Your task to perform on an android device: Go to notification settings Image 0: 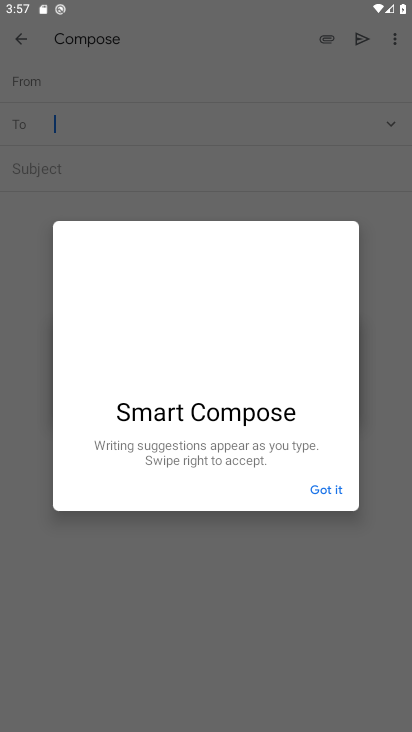
Step 0: press home button
Your task to perform on an android device: Go to notification settings Image 1: 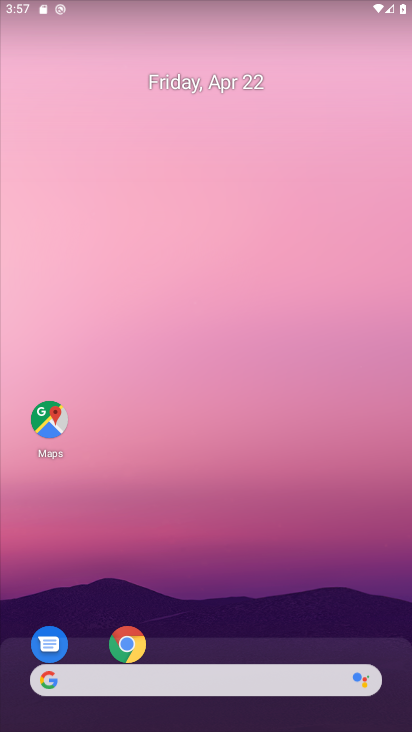
Step 1: drag from (314, 410) to (280, 137)
Your task to perform on an android device: Go to notification settings Image 2: 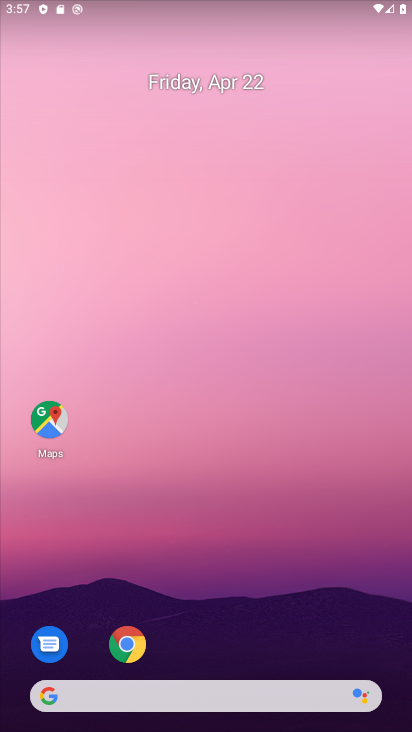
Step 2: drag from (316, 439) to (324, 132)
Your task to perform on an android device: Go to notification settings Image 3: 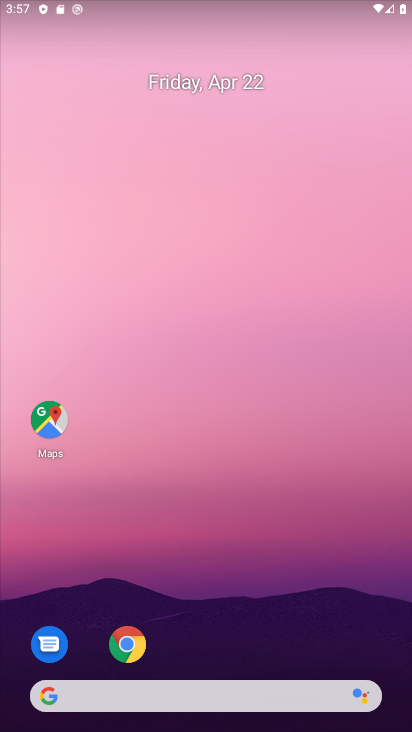
Step 3: drag from (193, 693) to (272, 66)
Your task to perform on an android device: Go to notification settings Image 4: 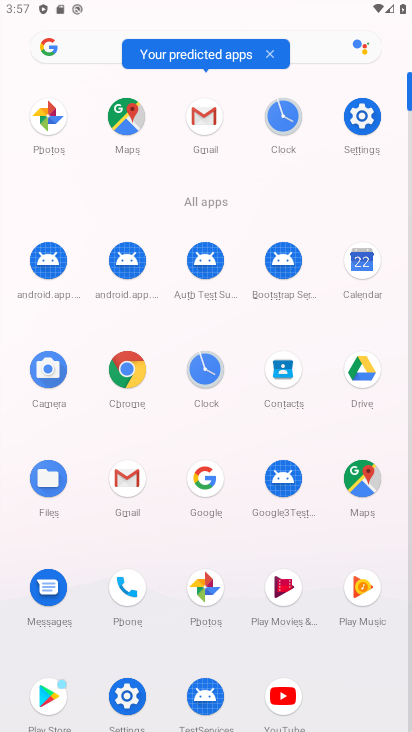
Step 4: click (363, 127)
Your task to perform on an android device: Go to notification settings Image 5: 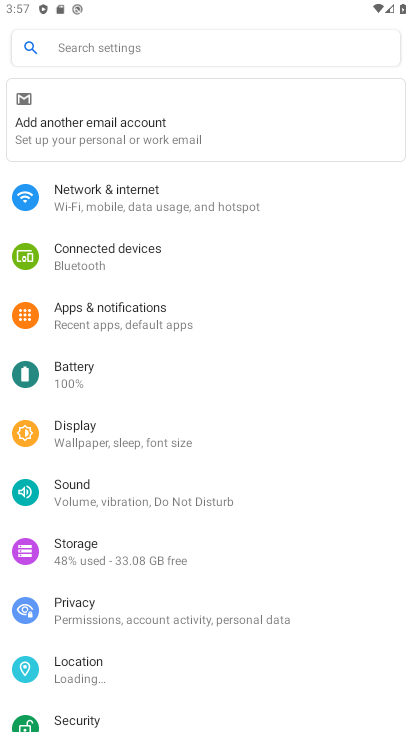
Step 5: click (139, 328)
Your task to perform on an android device: Go to notification settings Image 6: 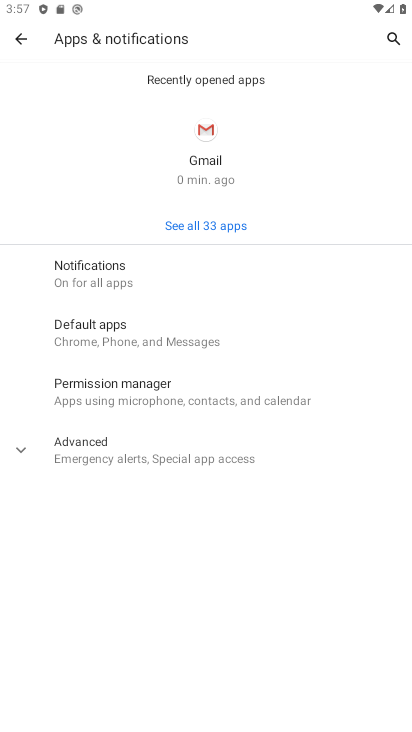
Step 6: click (151, 285)
Your task to perform on an android device: Go to notification settings Image 7: 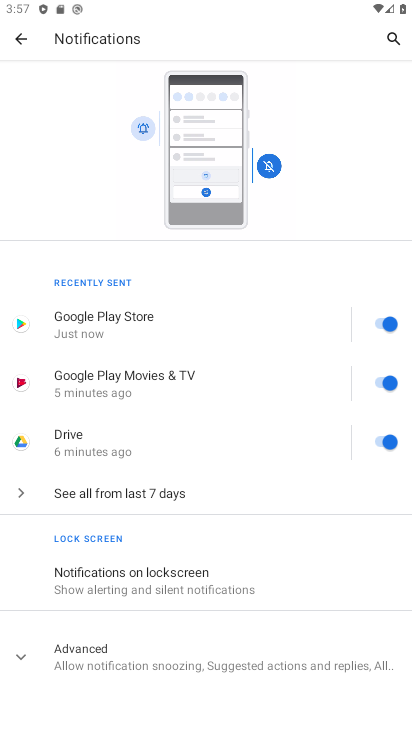
Step 7: task complete